Your task to perform on an android device: turn on translation in the chrome app Image 0: 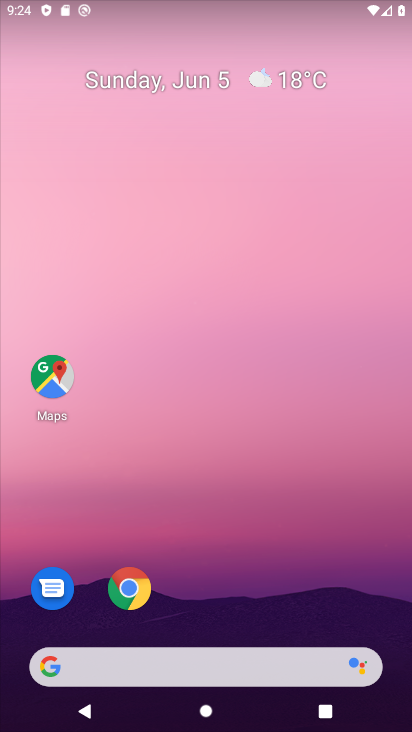
Step 0: drag from (326, 589) to (340, 204)
Your task to perform on an android device: turn on translation in the chrome app Image 1: 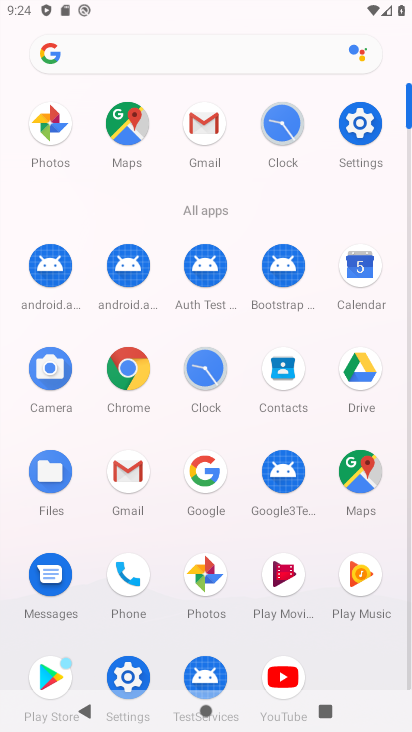
Step 1: click (131, 383)
Your task to perform on an android device: turn on translation in the chrome app Image 2: 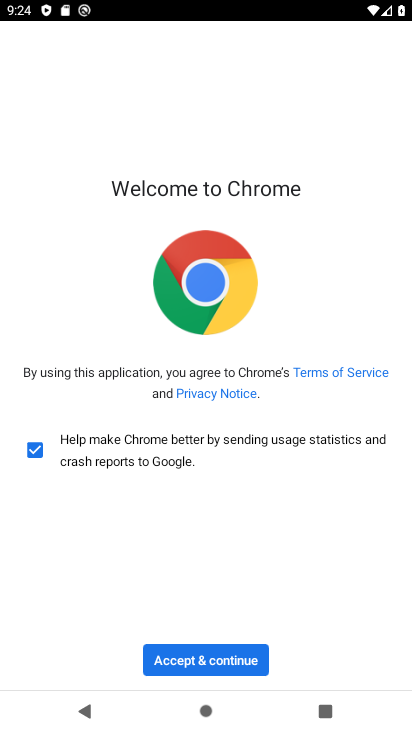
Step 2: click (202, 660)
Your task to perform on an android device: turn on translation in the chrome app Image 3: 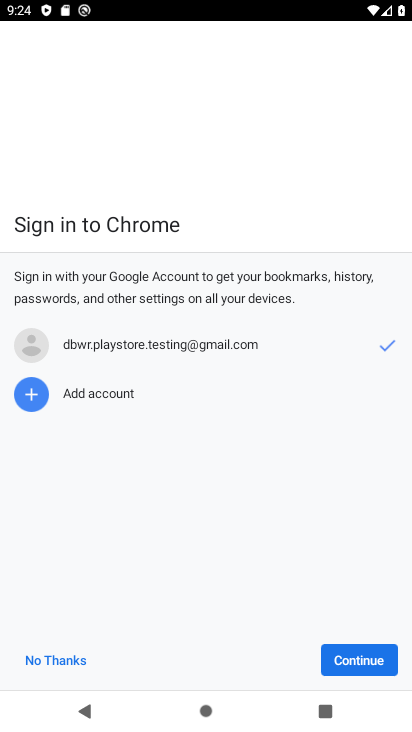
Step 3: click (345, 655)
Your task to perform on an android device: turn on translation in the chrome app Image 4: 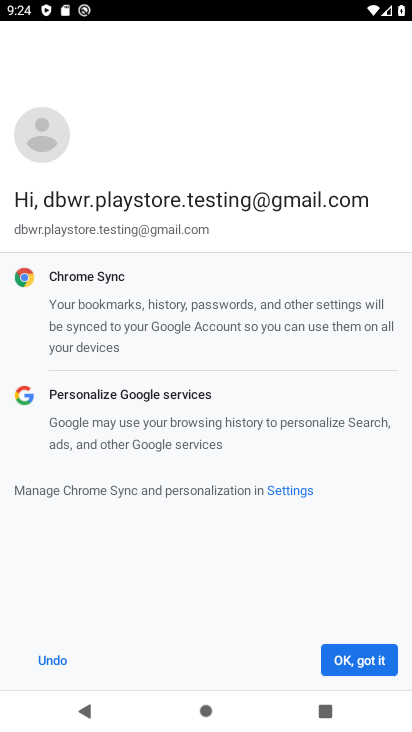
Step 4: click (345, 655)
Your task to perform on an android device: turn on translation in the chrome app Image 5: 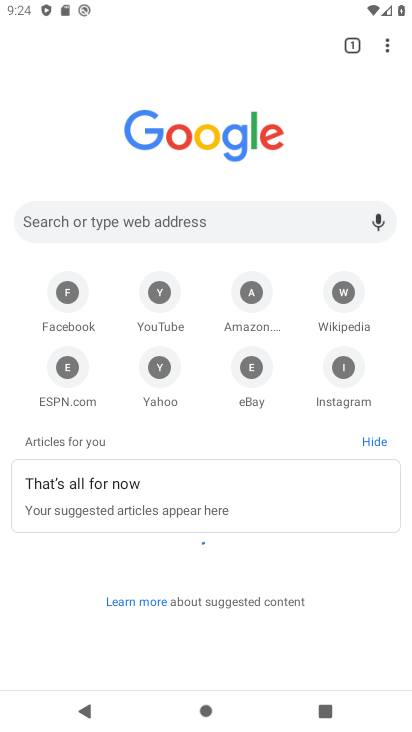
Step 5: click (345, 655)
Your task to perform on an android device: turn on translation in the chrome app Image 6: 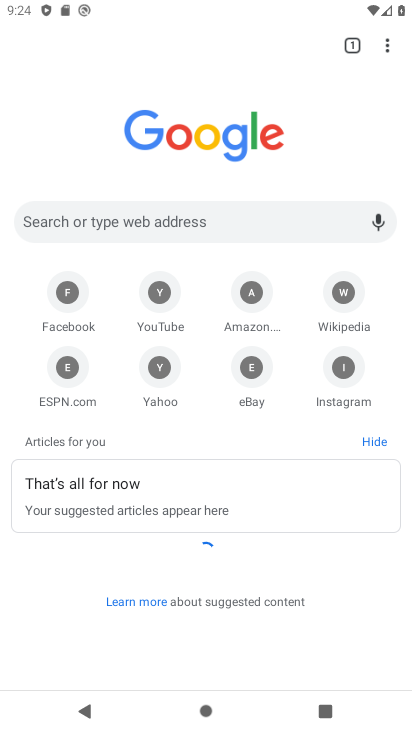
Step 6: click (382, 49)
Your task to perform on an android device: turn on translation in the chrome app Image 7: 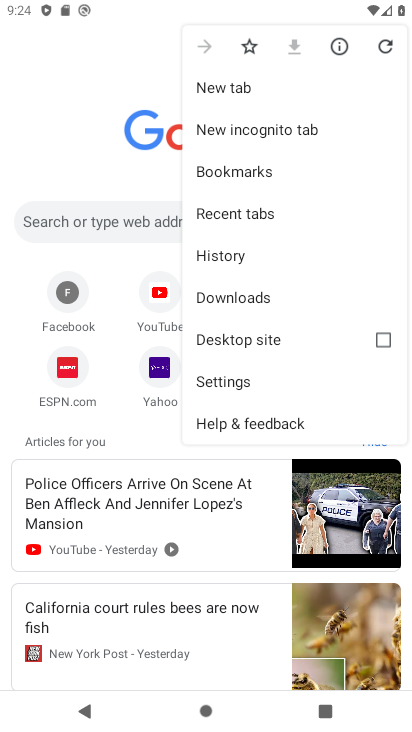
Step 7: click (251, 386)
Your task to perform on an android device: turn on translation in the chrome app Image 8: 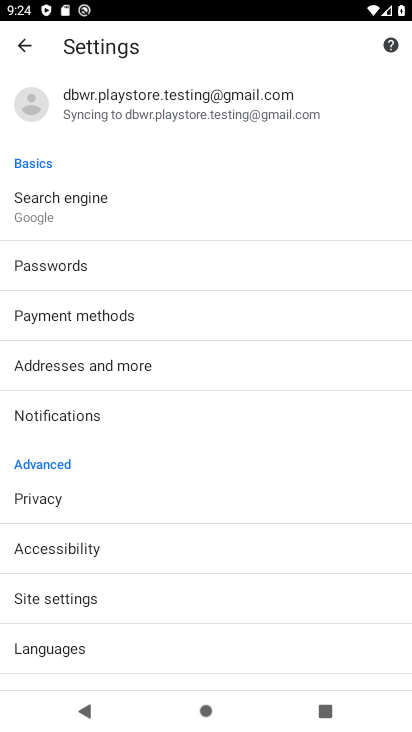
Step 8: drag from (283, 359) to (321, 275)
Your task to perform on an android device: turn on translation in the chrome app Image 9: 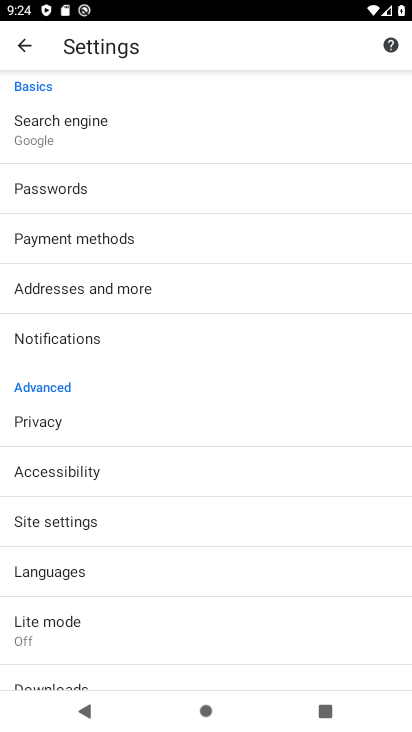
Step 9: drag from (338, 392) to (330, 325)
Your task to perform on an android device: turn on translation in the chrome app Image 10: 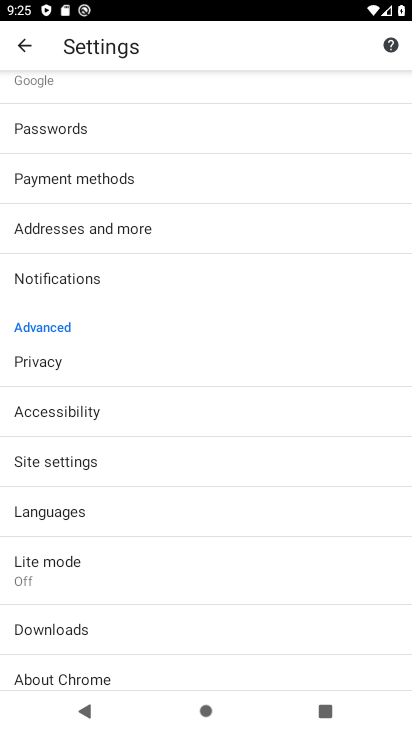
Step 10: drag from (320, 438) to (324, 346)
Your task to perform on an android device: turn on translation in the chrome app Image 11: 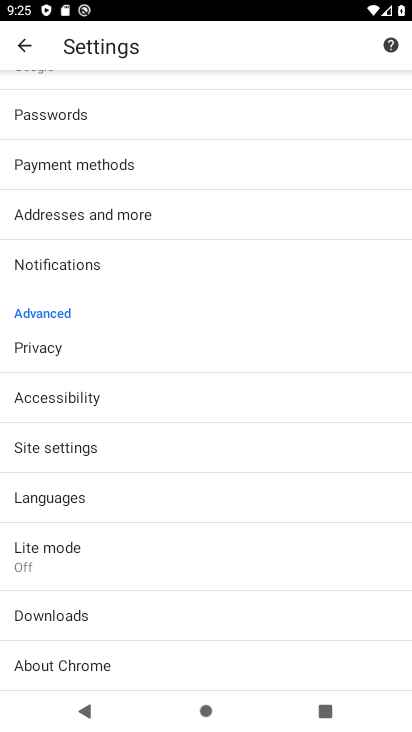
Step 11: click (179, 509)
Your task to perform on an android device: turn on translation in the chrome app Image 12: 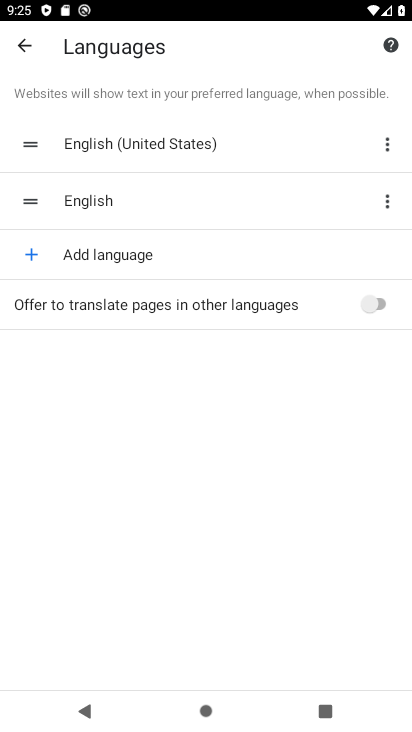
Step 12: click (377, 308)
Your task to perform on an android device: turn on translation in the chrome app Image 13: 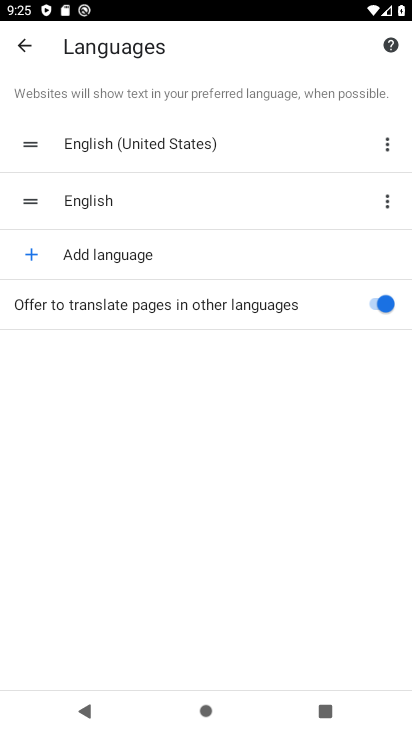
Step 13: task complete